Your task to perform on an android device: Open Google Chrome and open the bookmarks view Image 0: 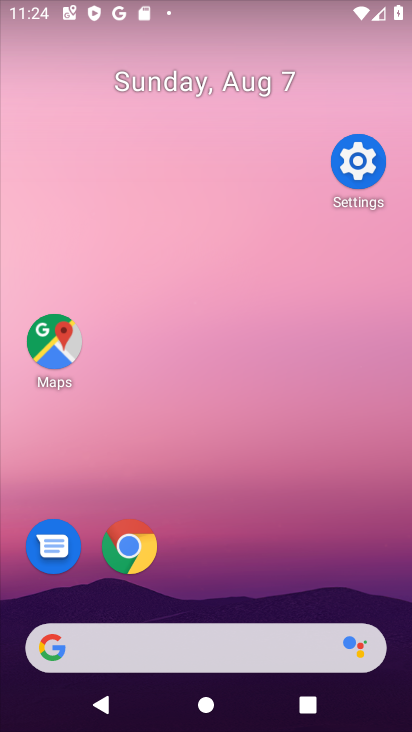
Step 0: drag from (229, 417) to (211, 232)
Your task to perform on an android device: Open Google Chrome and open the bookmarks view Image 1: 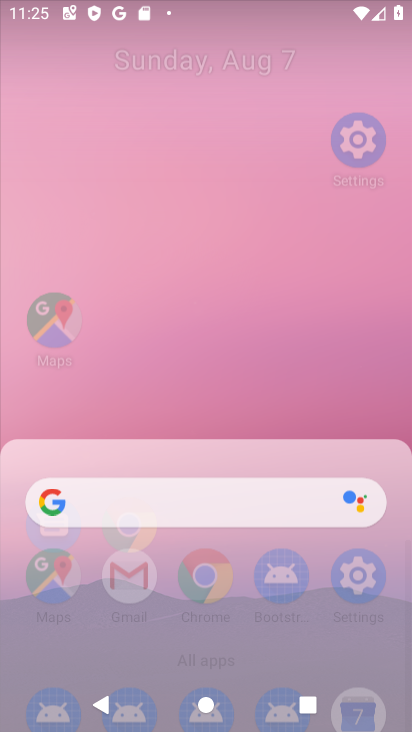
Step 1: drag from (278, 542) to (292, 134)
Your task to perform on an android device: Open Google Chrome and open the bookmarks view Image 2: 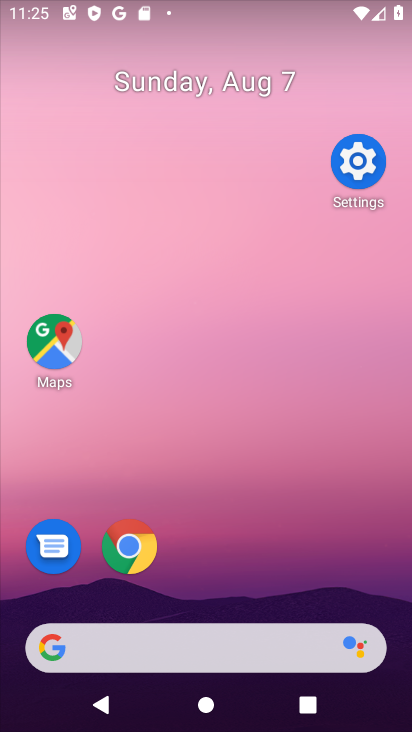
Step 2: drag from (261, 688) to (167, 317)
Your task to perform on an android device: Open Google Chrome and open the bookmarks view Image 3: 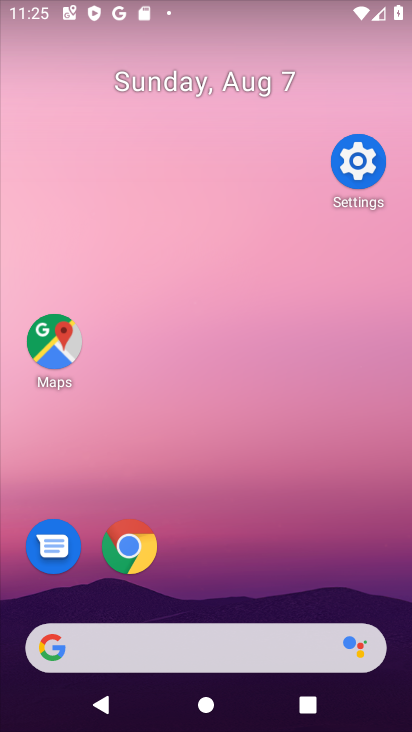
Step 3: drag from (296, 676) to (267, 243)
Your task to perform on an android device: Open Google Chrome and open the bookmarks view Image 4: 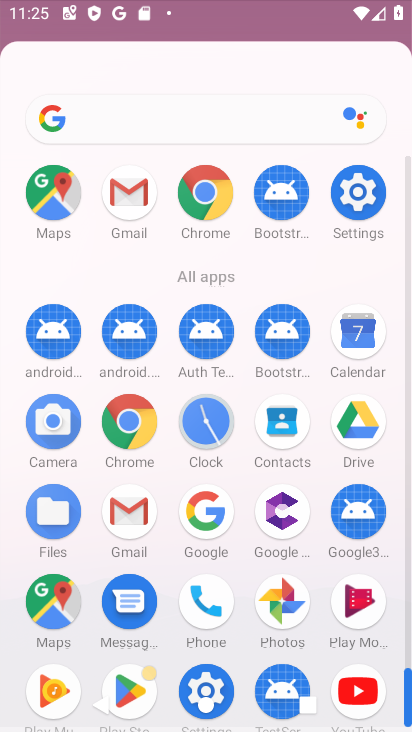
Step 4: drag from (240, 545) to (218, 254)
Your task to perform on an android device: Open Google Chrome and open the bookmarks view Image 5: 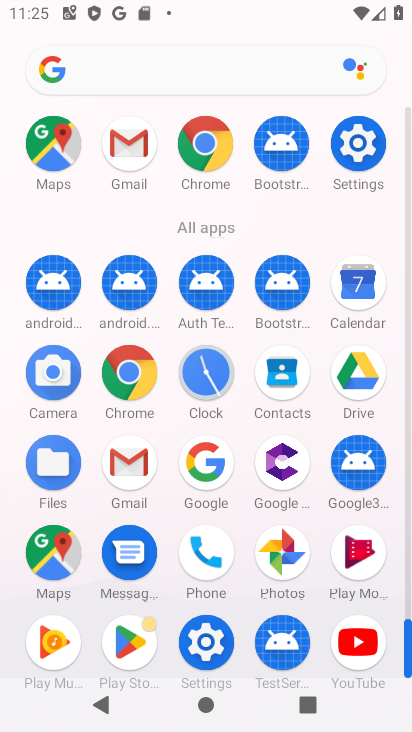
Step 5: drag from (277, 587) to (276, 190)
Your task to perform on an android device: Open Google Chrome and open the bookmarks view Image 6: 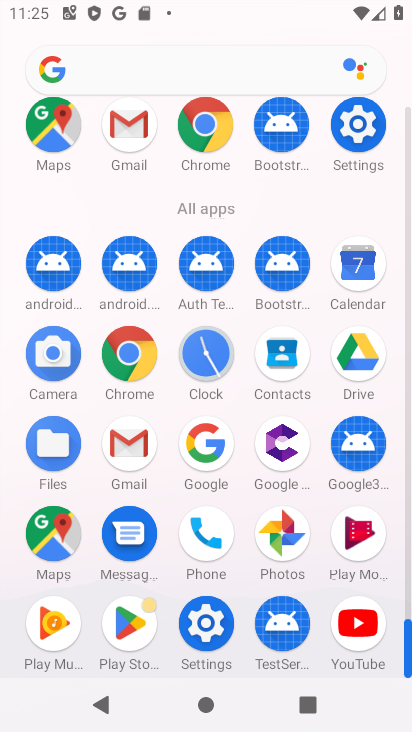
Step 6: click (225, 121)
Your task to perform on an android device: Open Google Chrome and open the bookmarks view Image 7: 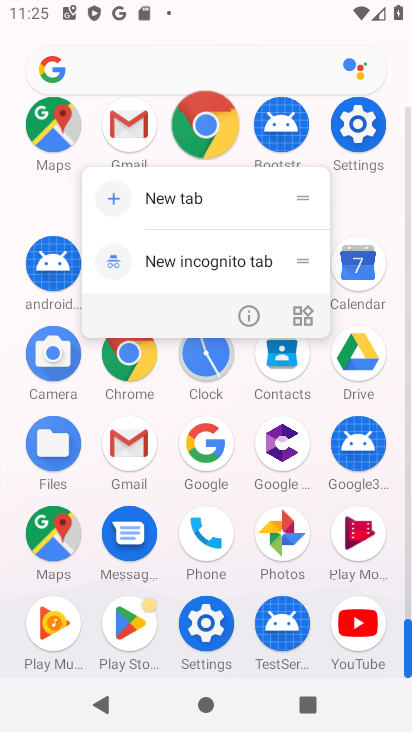
Step 7: click (222, 121)
Your task to perform on an android device: Open Google Chrome and open the bookmarks view Image 8: 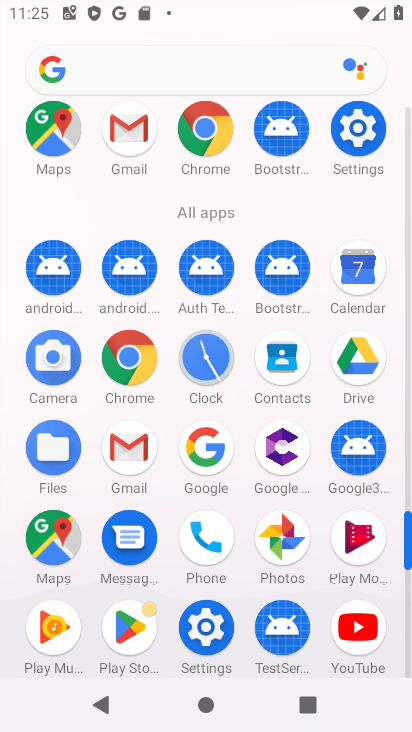
Step 8: click (211, 137)
Your task to perform on an android device: Open Google Chrome and open the bookmarks view Image 9: 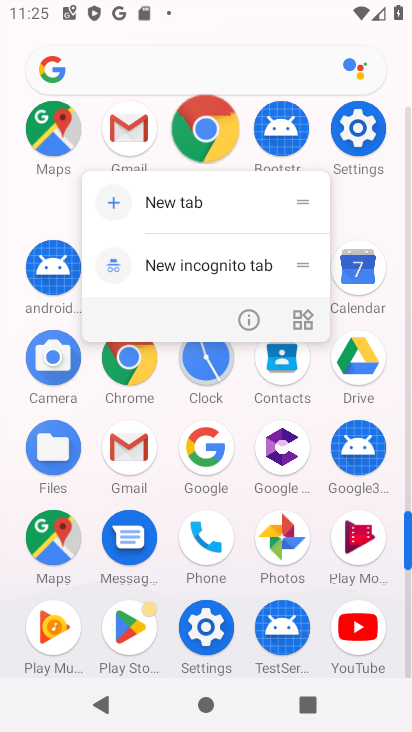
Step 9: drag from (221, 142) to (254, 125)
Your task to perform on an android device: Open Google Chrome and open the bookmarks view Image 10: 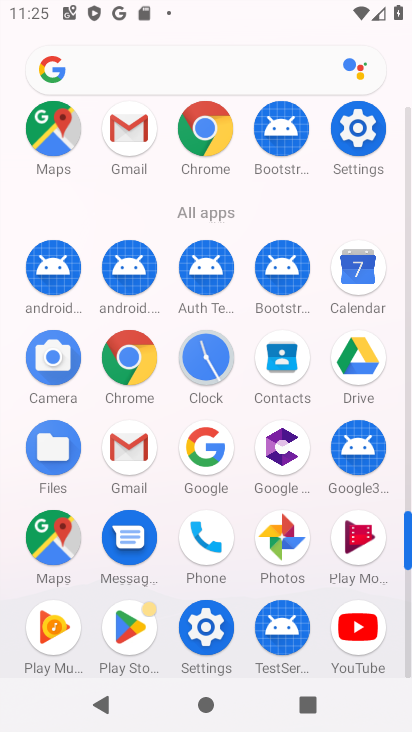
Step 10: click (257, 122)
Your task to perform on an android device: Open Google Chrome and open the bookmarks view Image 11: 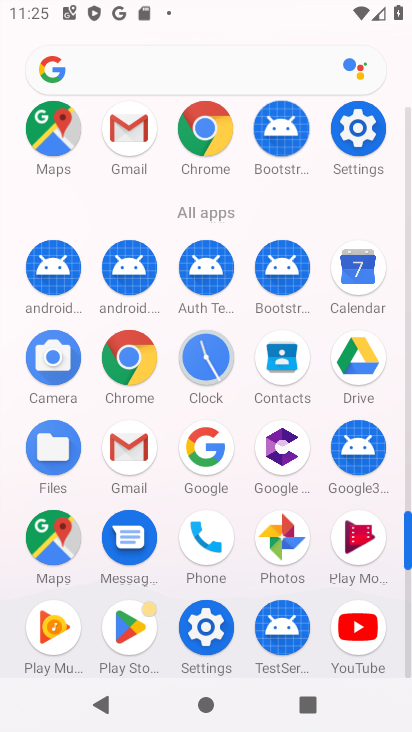
Step 11: click (259, 122)
Your task to perform on an android device: Open Google Chrome and open the bookmarks view Image 12: 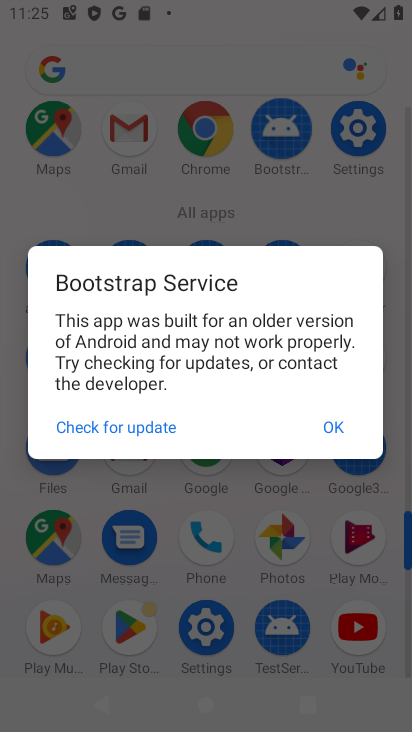
Step 12: click (204, 133)
Your task to perform on an android device: Open Google Chrome and open the bookmarks view Image 13: 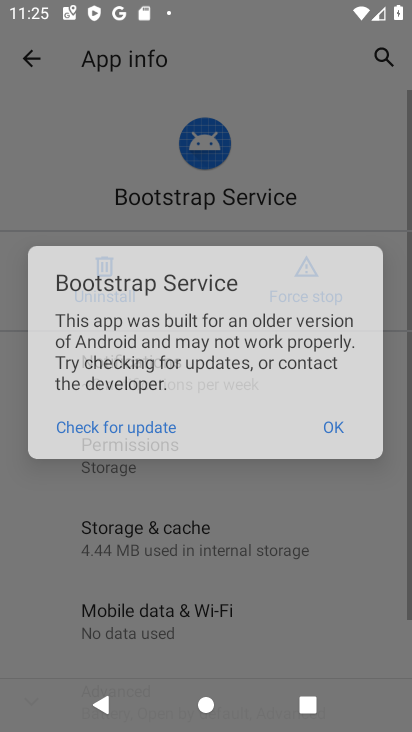
Step 13: click (206, 132)
Your task to perform on an android device: Open Google Chrome and open the bookmarks view Image 14: 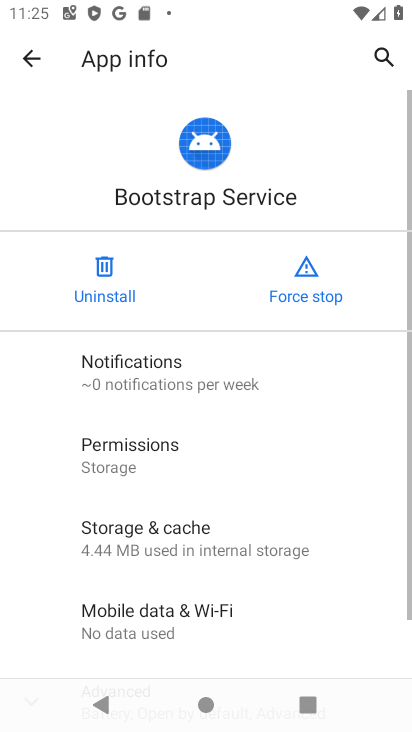
Step 14: click (206, 132)
Your task to perform on an android device: Open Google Chrome and open the bookmarks view Image 15: 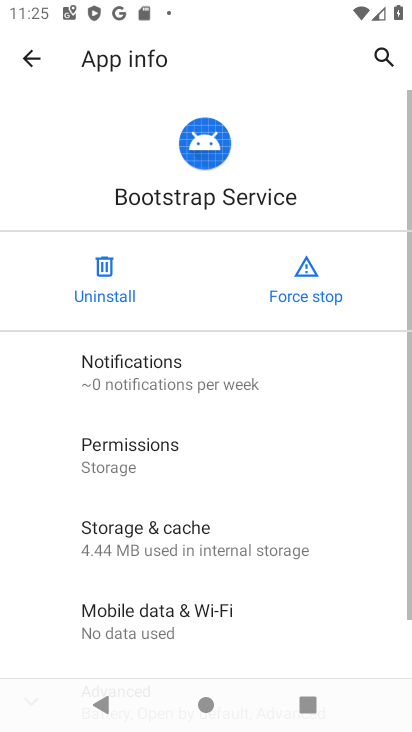
Step 15: click (208, 133)
Your task to perform on an android device: Open Google Chrome and open the bookmarks view Image 16: 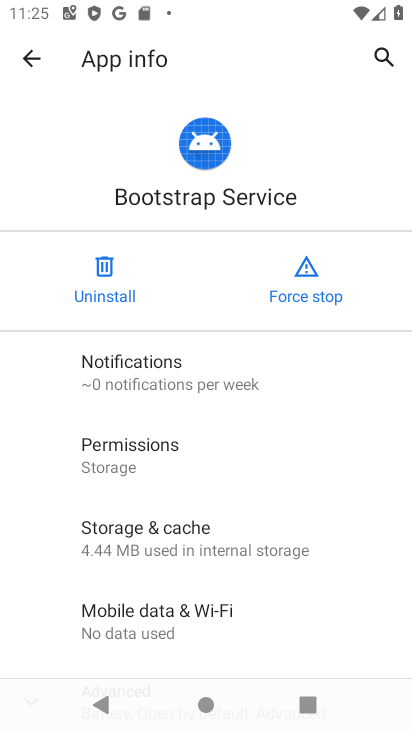
Step 16: click (37, 68)
Your task to perform on an android device: Open Google Chrome and open the bookmarks view Image 17: 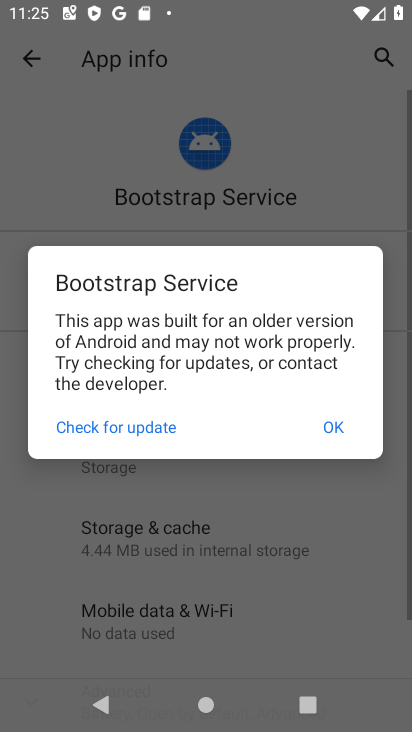
Step 17: click (334, 413)
Your task to perform on an android device: Open Google Chrome and open the bookmarks view Image 18: 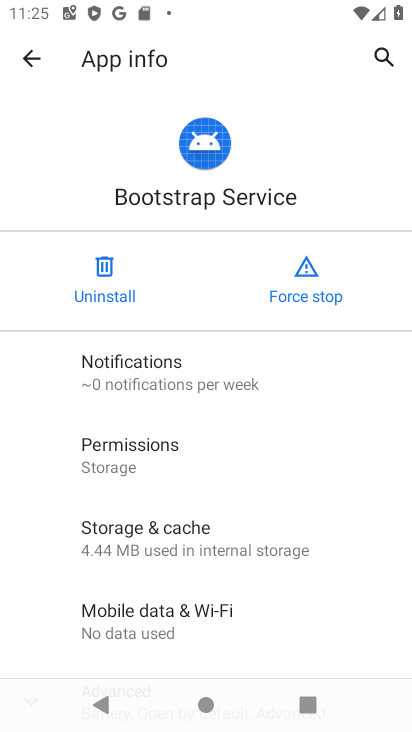
Step 18: click (33, 67)
Your task to perform on an android device: Open Google Chrome and open the bookmarks view Image 19: 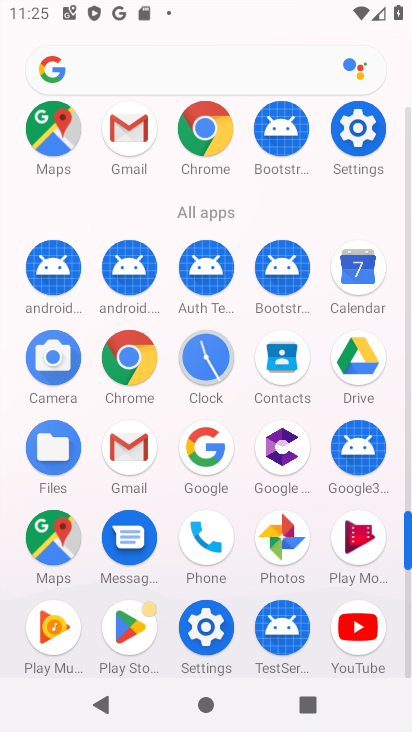
Step 19: click (210, 141)
Your task to perform on an android device: Open Google Chrome and open the bookmarks view Image 20: 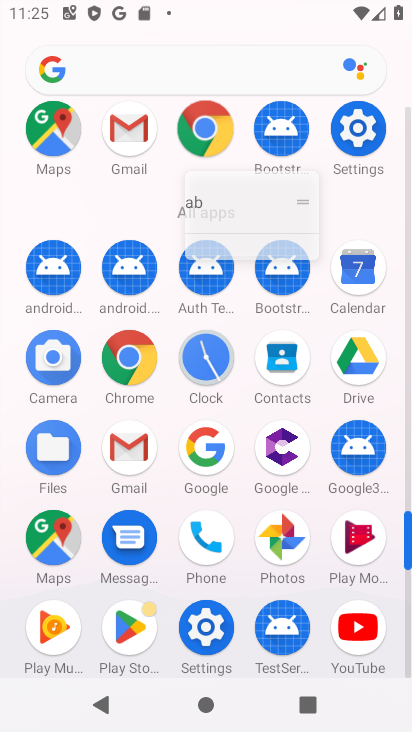
Step 20: click (211, 141)
Your task to perform on an android device: Open Google Chrome and open the bookmarks view Image 21: 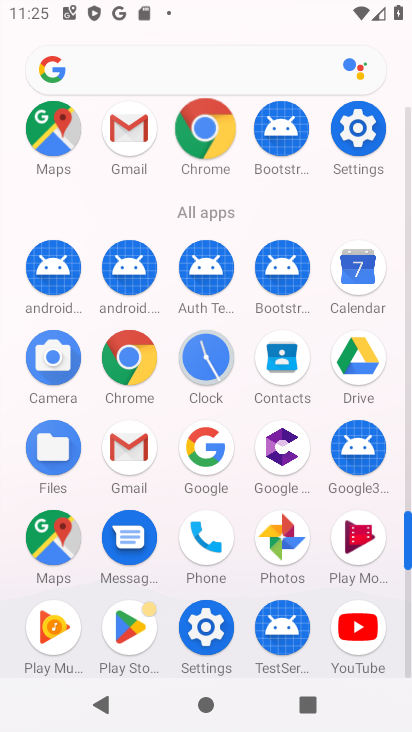
Step 21: click (212, 142)
Your task to perform on an android device: Open Google Chrome and open the bookmarks view Image 22: 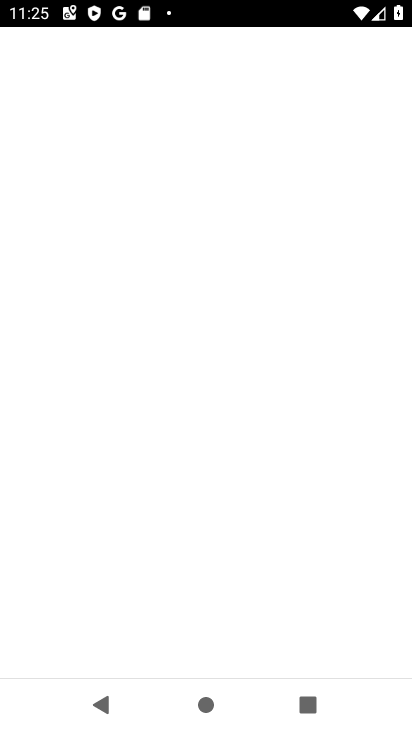
Step 22: click (212, 142)
Your task to perform on an android device: Open Google Chrome and open the bookmarks view Image 23: 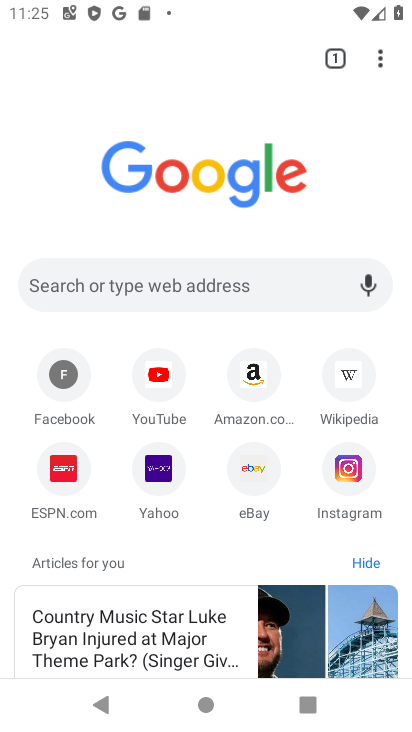
Step 23: drag from (378, 58) to (190, 220)
Your task to perform on an android device: Open Google Chrome and open the bookmarks view Image 24: 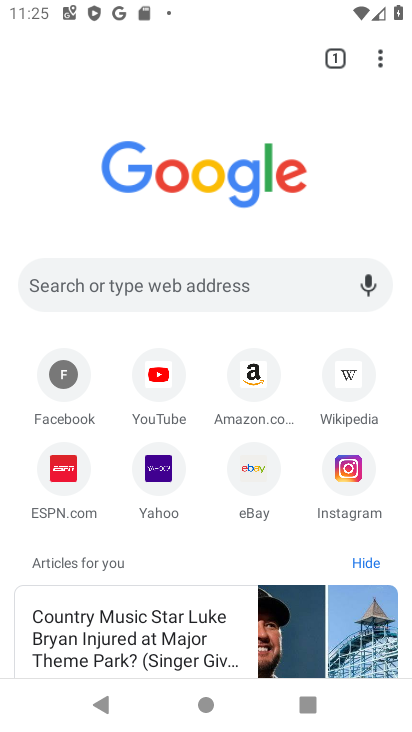
Step 24: click (189, 221)
Your task to perform on an android device: Open Google Chrome and open the bookmarks view Image 25: 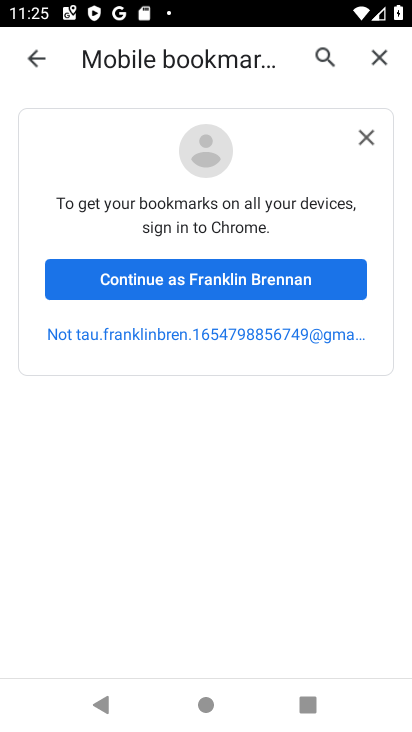
Step 25: click (363, 136)
Your task to perform on an android device: Open Google Chrome and open the bookmarks view Image 26: 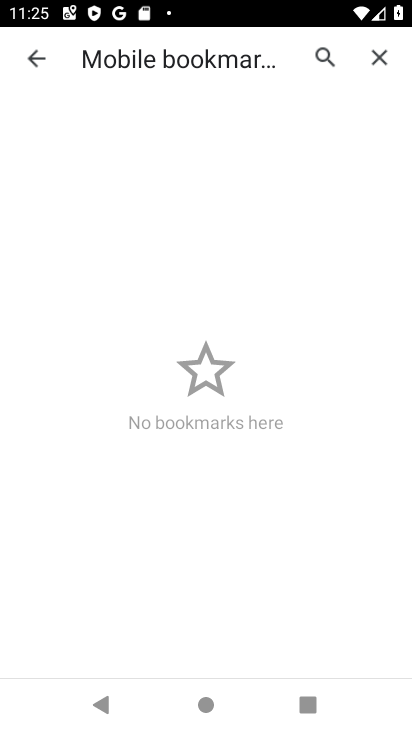
Step 26: task complete